Your task to perform on an android device: open device folders in google photos Image 0: 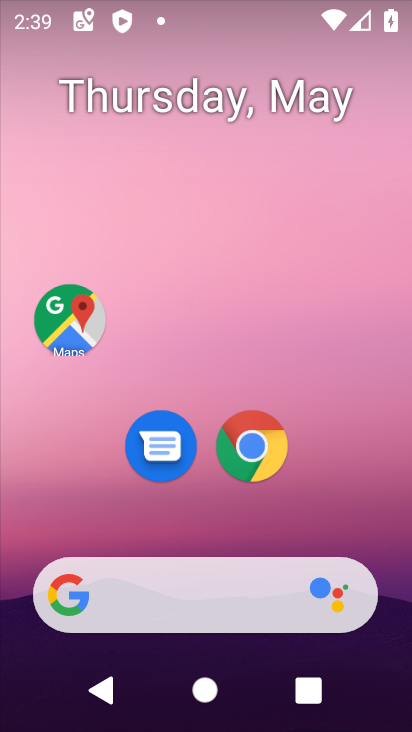
Step 0: drag from (226, 531) to (174, 114)
Your task to perform on an android device: open device folders in google photos Image 1: 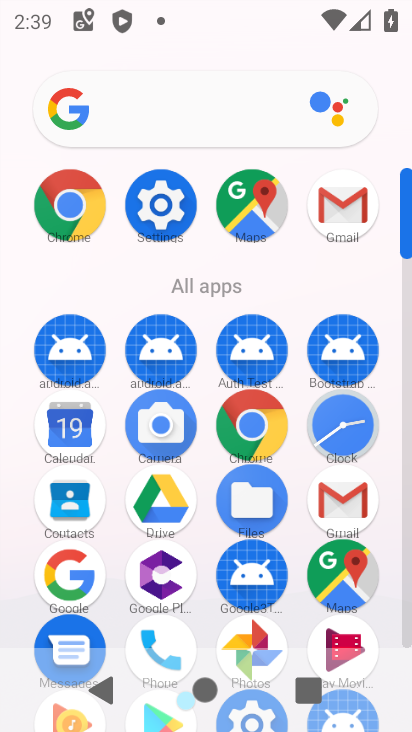
Step 1: drag from (298, 485) to (257, 258)
Your task to perform on an android device: open device folders in google photos Image 2: 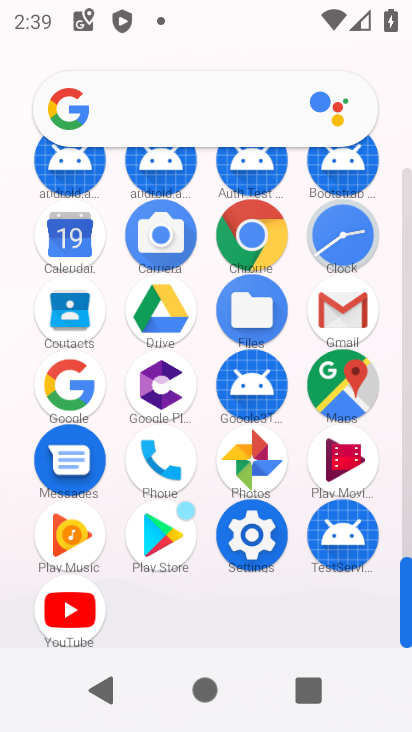
Step 2: click (241, 465)
Your task to perform on an android device: open device folders in google photos Image 3: 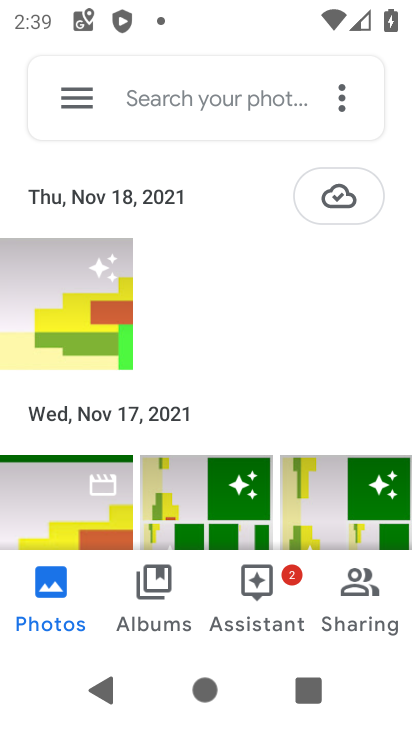
Step 3: click (72, 108)
Your task to perform on an android device: open device folders in google photos Image 4: 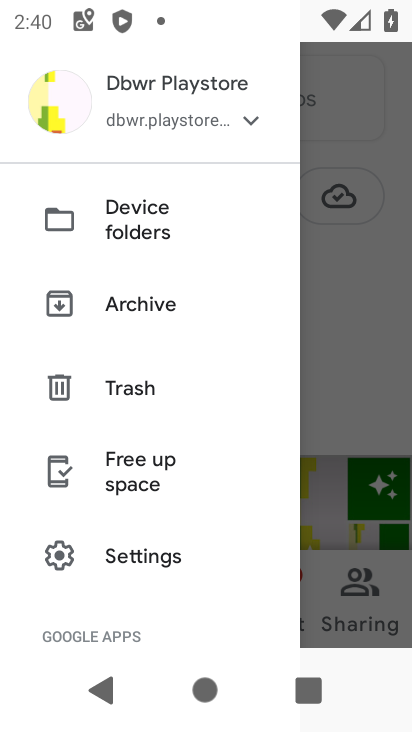
Step 4: click (139, 237)
Your task to perform on an android device: open device folders in google photos Image 5: 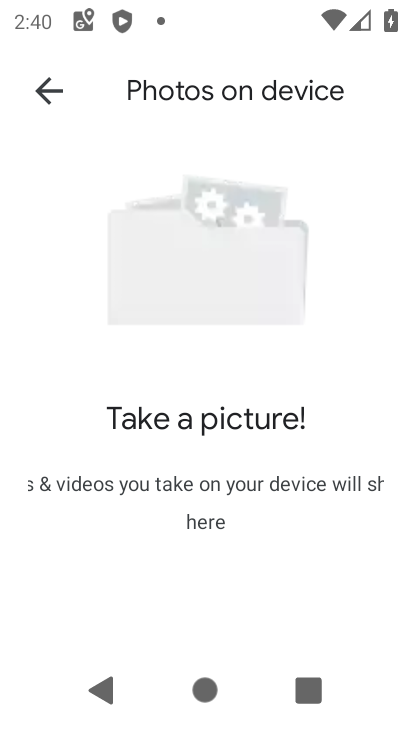
Step 5: task complete